Your task to perform on an android device: check out phone information Image 0: 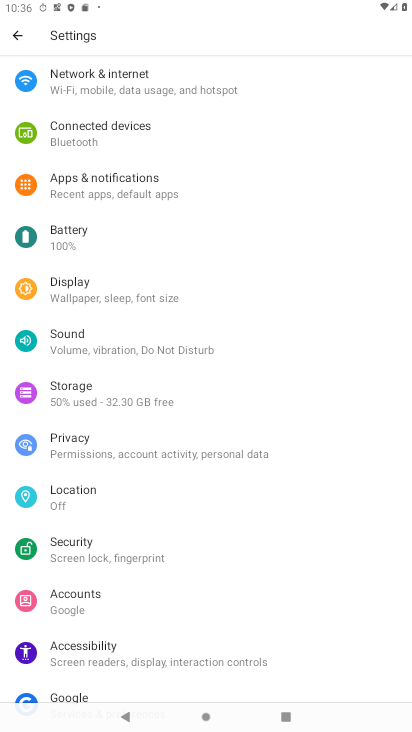
Step 0: press home button
Your task to perform on an android device: check out phone information Image 1: 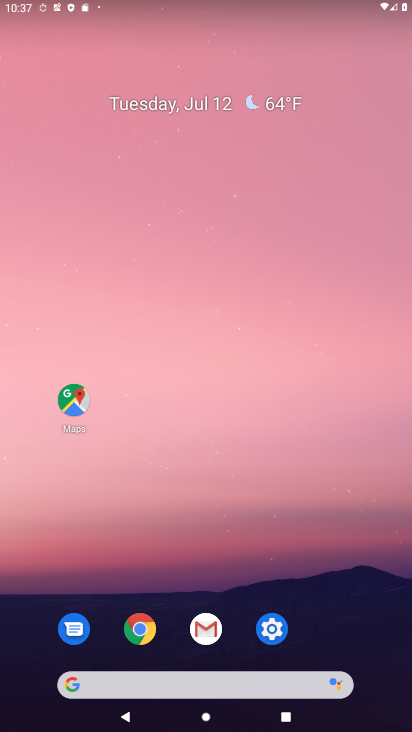
Step 1: click (276, 634)
Your task to perform on an android device: check out phone information Image 2: 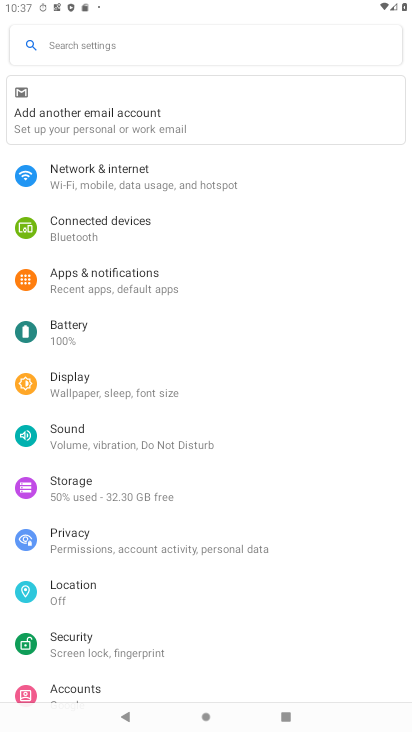
Step 2: click (115, 48)
Your task to perform on an android device: check out phone information Image 3: 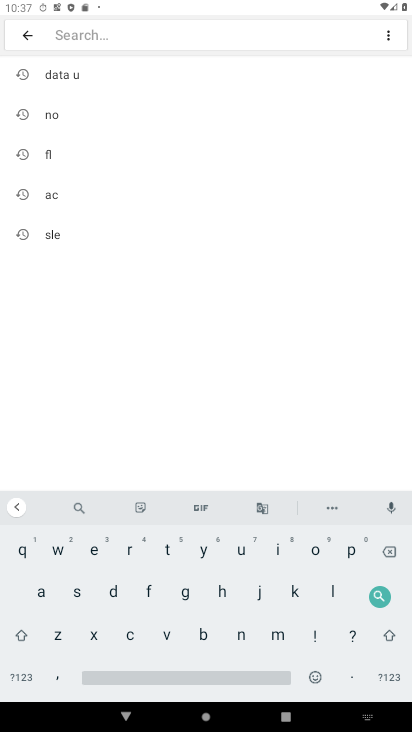
Step 3: click (38, 585)
Your task to perform on an android device: check out phone information Image 4: 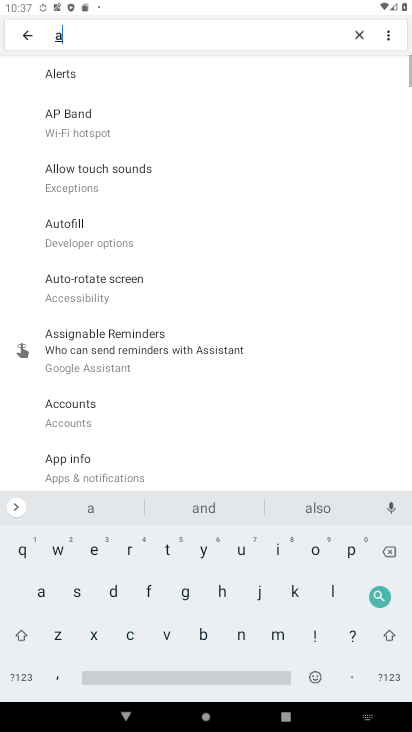
Step 4: click (194, 643)
Your task to perform on an android device: check out phone information Image 5: 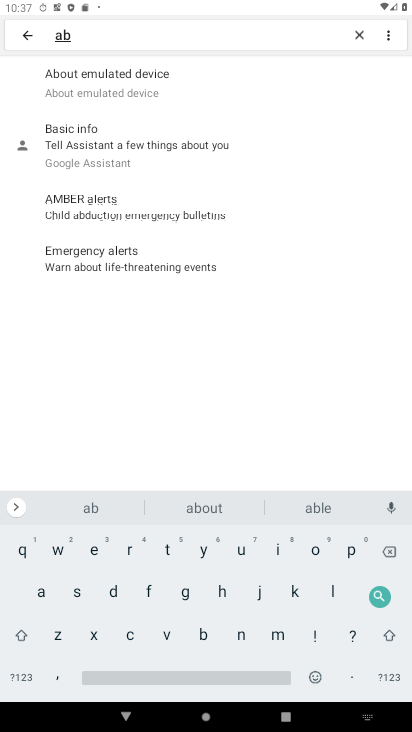
Step 5: click (99, 87)
Your task to perform on an android device: check out phone information Image 6: 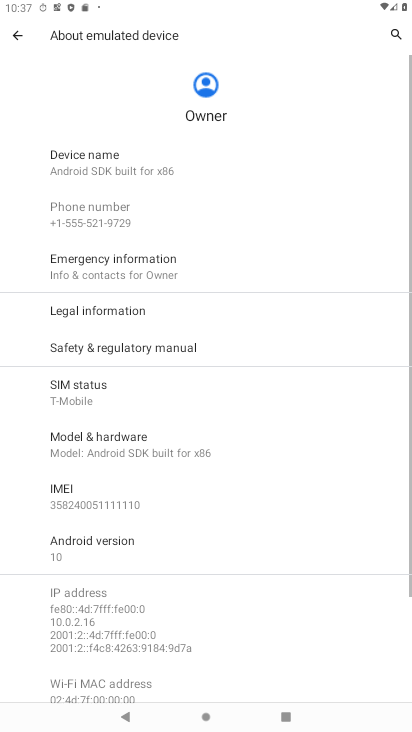
Step 6: task complete